Your task to perform on an android device: open the mobile data screen to see how much data has been used Image 0: 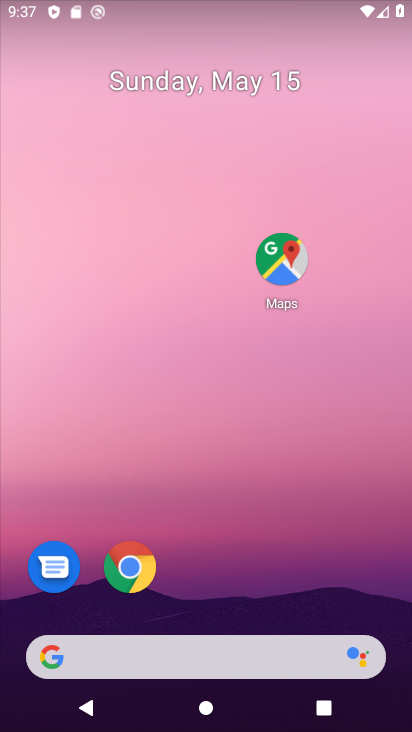
Step 0: drag from (236, 368) to (246, 123)
Your task to perform on an android device: open the mobile data screen to see how much data has been used Image 1: 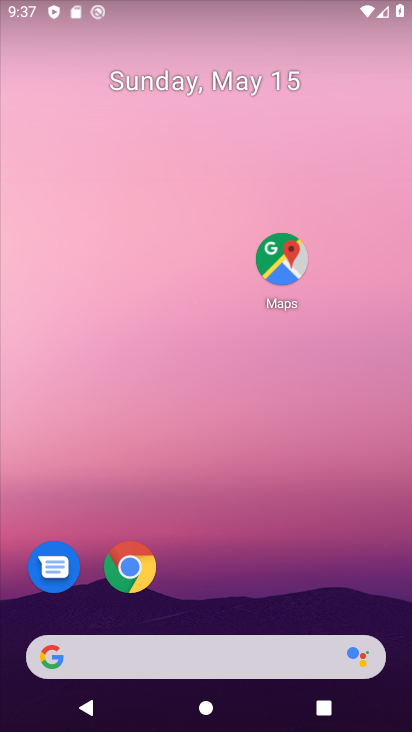
Step 1: drag from (228, 573) to (244, 82)
Your task to perform on an android device: open the mobile data screen to see how much data has been used Image 2: 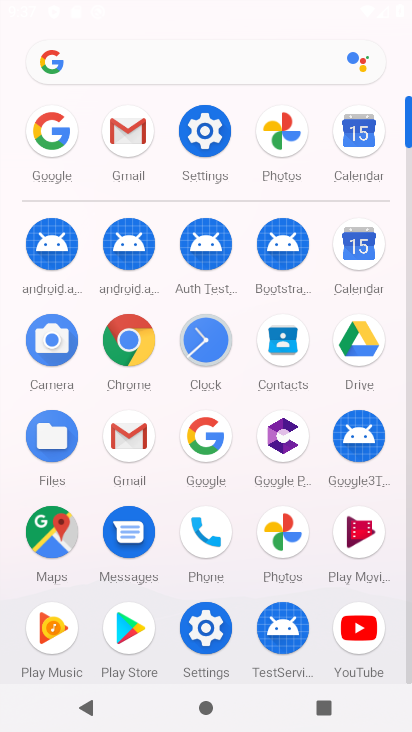
Step 2: click (204, 127)
Your task to perform on an android device: open the mobile data screen to see how much data has been used Image 3: 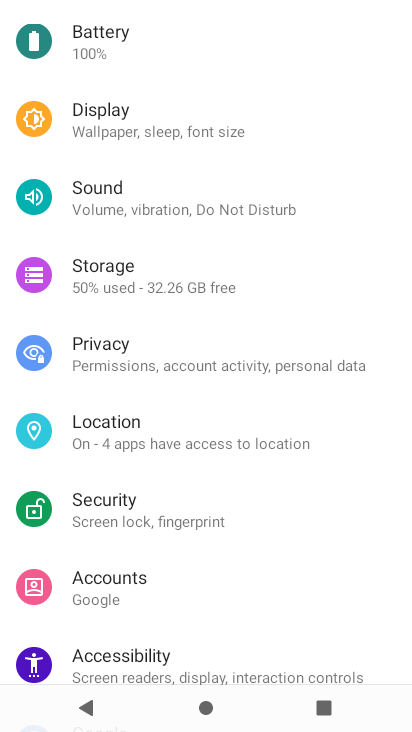
Step 3: drag from (204, 127) to (260, 590)
Your task to perform on an android device: open the mobile data screen to see how much data has been used Image 4: 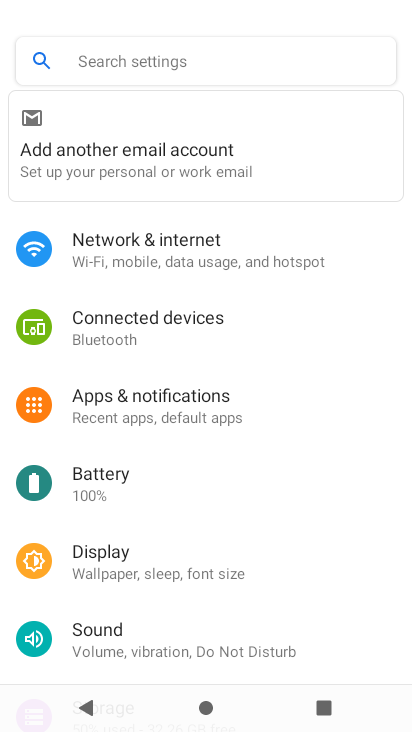
Step 4: click (210, 253)
Your task to perform on an android device: open the mobile data screen to see how much data has been used Image 5: 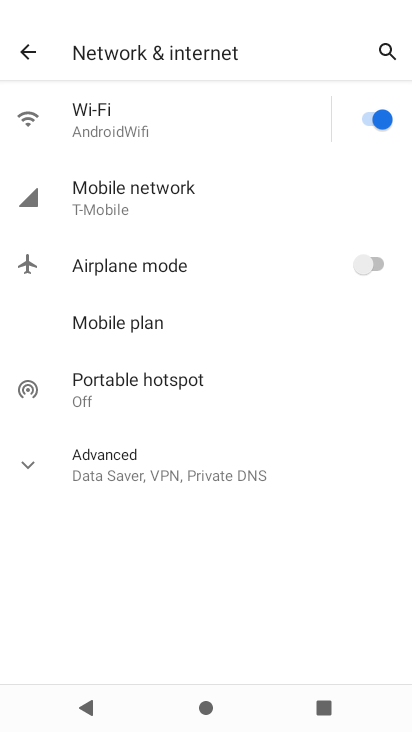
Step 5: click (153, 200)
Your task to perform on an android device: open the mobile data screen to see how much data has been used Image 6: 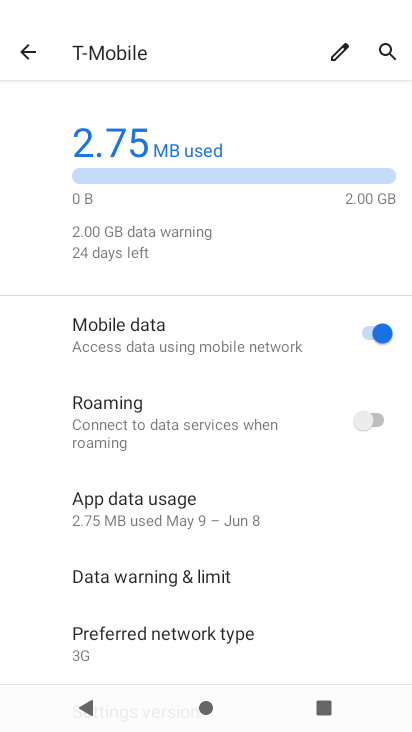
Step 6: task complete